Your task to perform on an android device: check data usage Image 0: 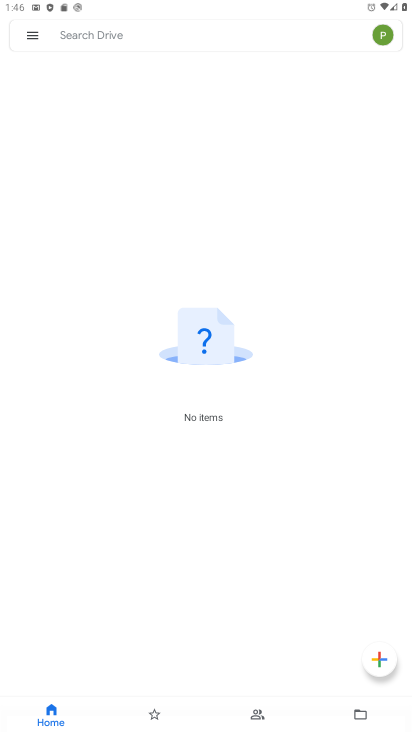
Step 0: press home button
Your task to perform on an android device: check data usage Image 1: 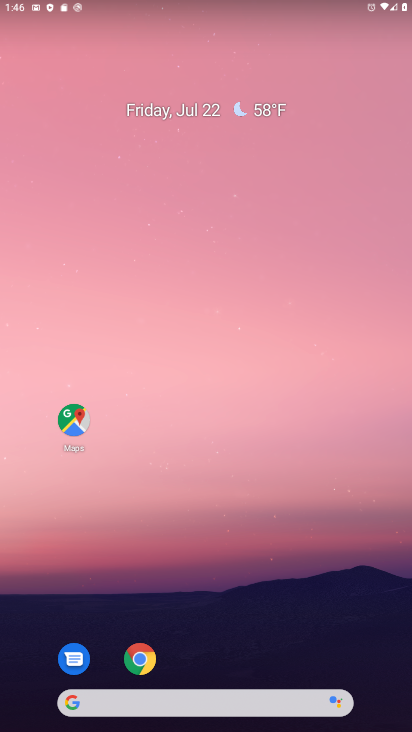
Step 1: drag from (224, 676) to (219, 34)
Your task to perform on an android device: check data usage Image 2: 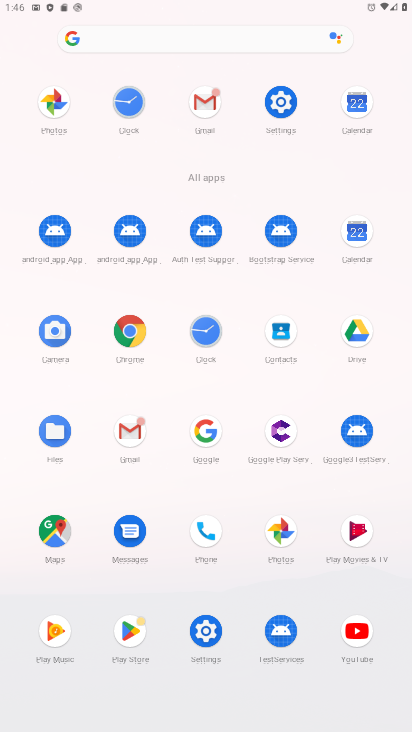
Step 2: click (263, 99)
Your task to perform on an android device: check data usage Image 3: 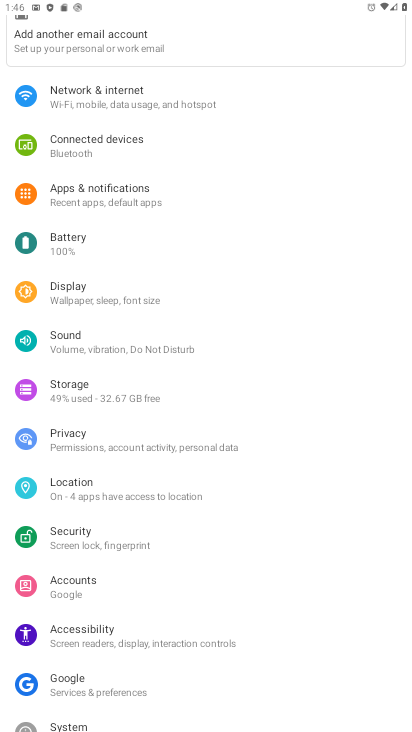
Step 3: click (147, 81)
Your task to perform on an android device: check data usage Image 4: 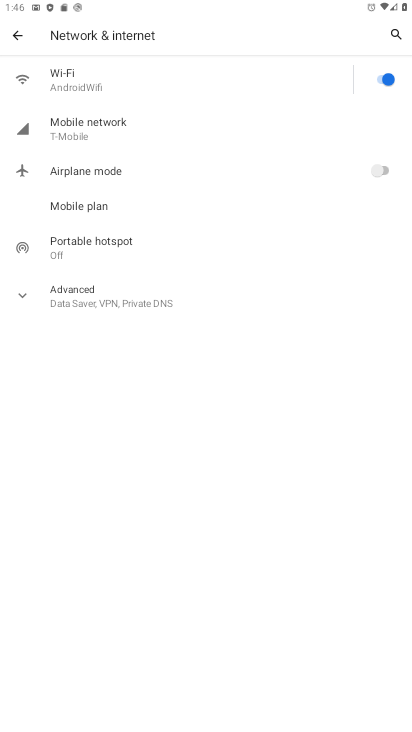
Step 4: click (78, 117)
Your task to perform on an android device: check data usage Image 5: 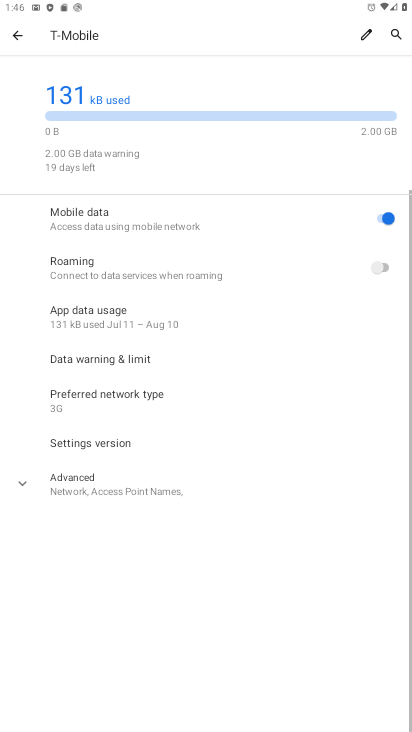
Step 5: click (78, 117)
Your task to perform on an android device: check data usage Image 6: 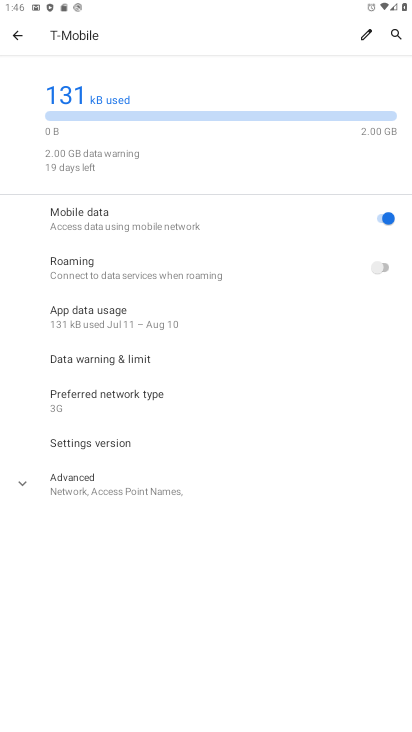
Step 6: task complete